Your task to perform on an android device: Open Maps and search for coffee Image 0: 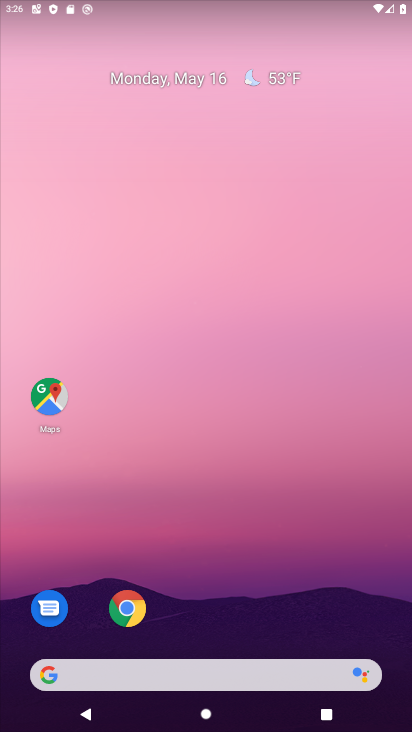
Step 0: click (48, 397)
Your task to perform on an android device: Open Maps and search for coffee Image 1: 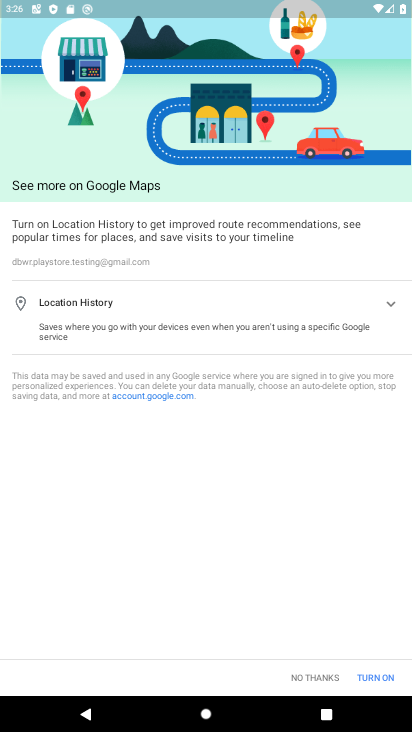
Step 1: click (311, 678)
Your task to perform on an android device: Open Maps and search for coffee Image 2: 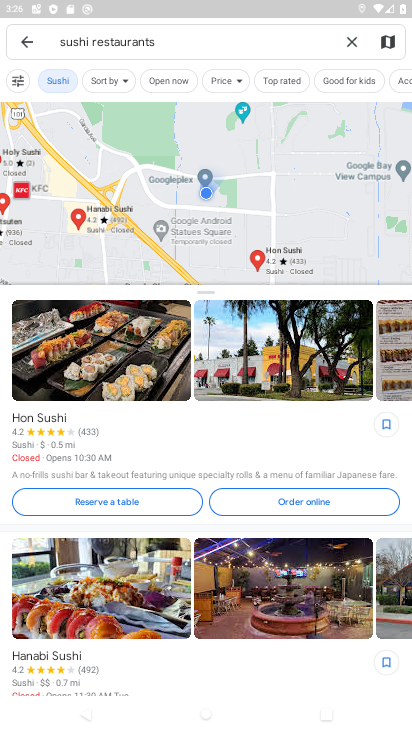
Step 2: click (351, 41)
Your task to perform on an android device: Open Maps and search for coffee Image 3: 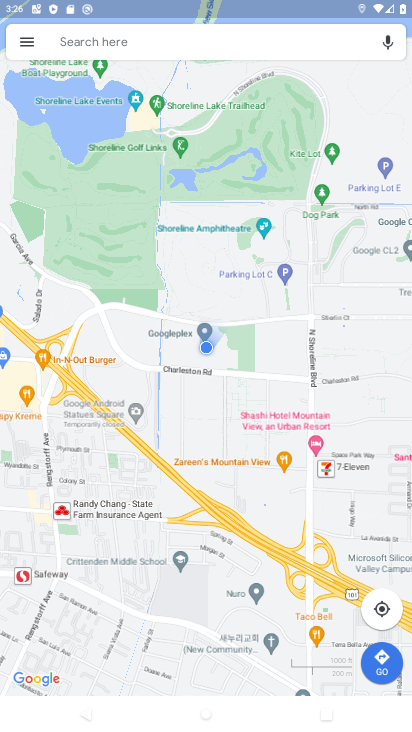
Step 3: click (196, 41)
Your task to perform on an android device: Open Maps and search for coffee Image 4: 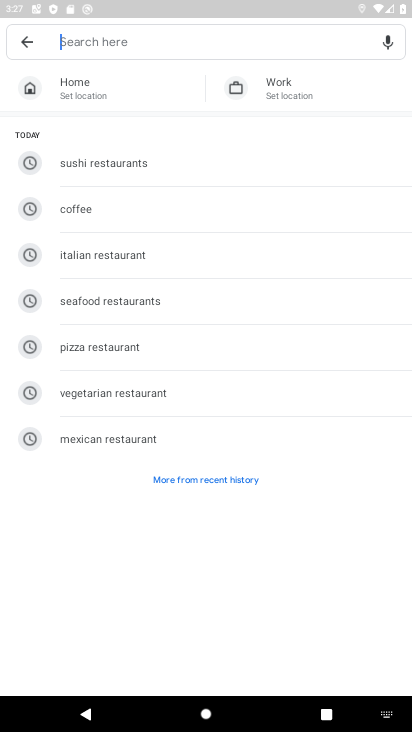
Step 4: type "coffee"
Your task to perform on an android device: Open Maps and search for coffee Image 5: 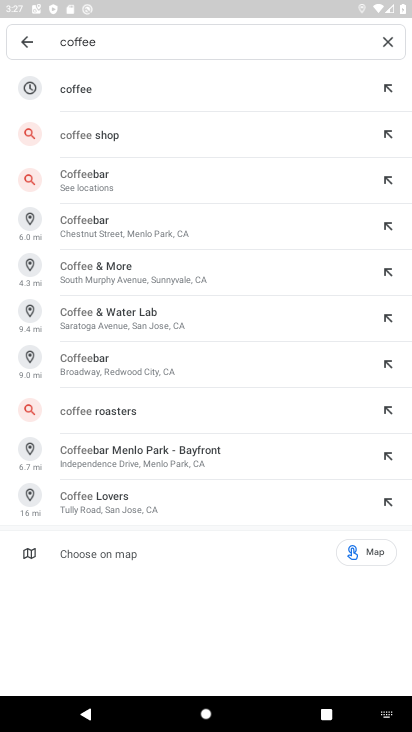
Step 5: click (79, 89)
Your task to perform on an android device: Open Maps and search for coffee Image 6: 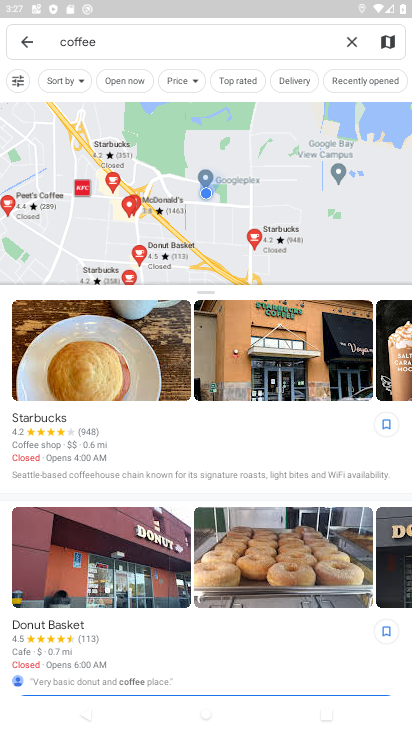
Step 6: task complete